Your task to perform on an android device: allow cookies in the chrome app Image 0: 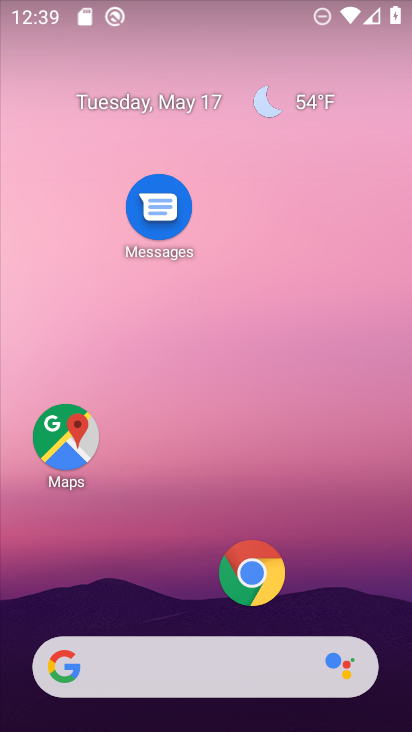
Step 0: click (252, 569)
Your task to perform on an android device: allow cookies in the chrome app Image 1: 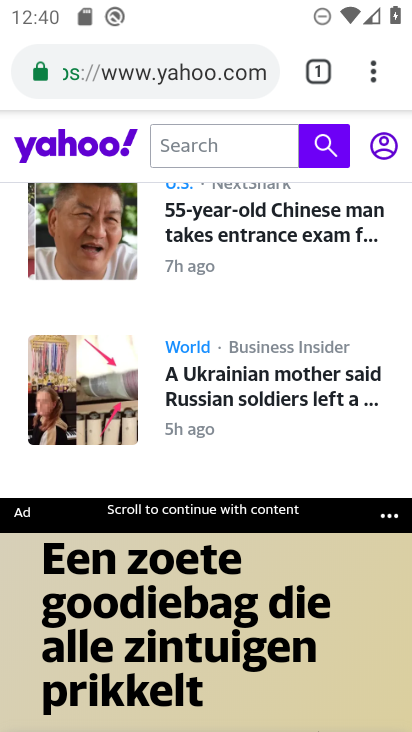
Step 1: click (372, 66)
Your task to perform on an android device: allow cookies in the chrome app Image 2: 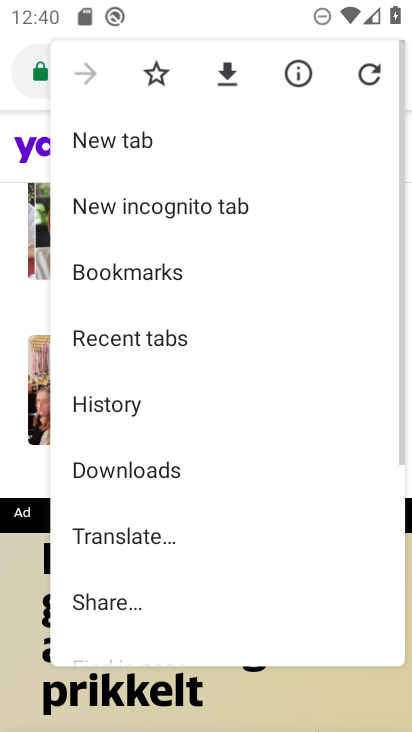
Step 2: drag from (179, 598) to (222, 52)
Your task to perform on an android device: allow cookies in the chrome app Image 3: 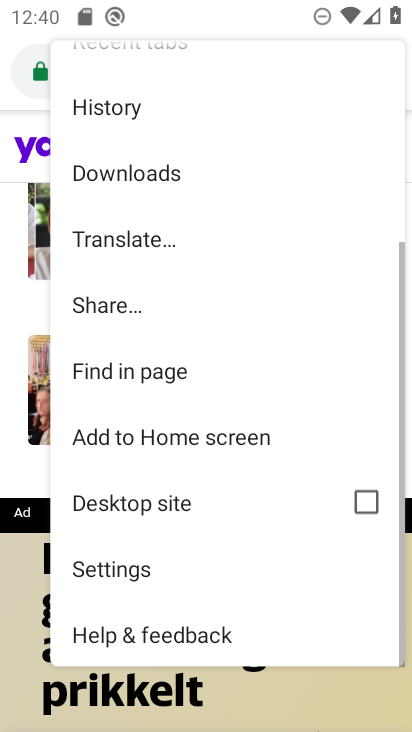
Step 3: click (163, 566)
Your task to perform on an android device: allow cookies in the chrome app Image 4: 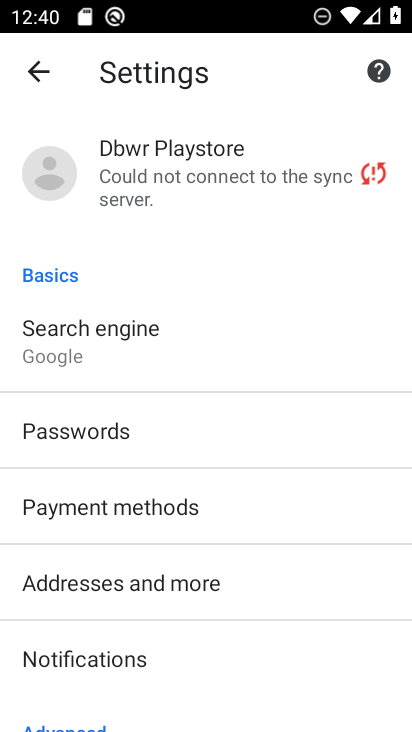
Step 4: drag from (247, 625) to (272, 170)
Your task to perform on an android device: allow cookies in the chrome app Image 5: 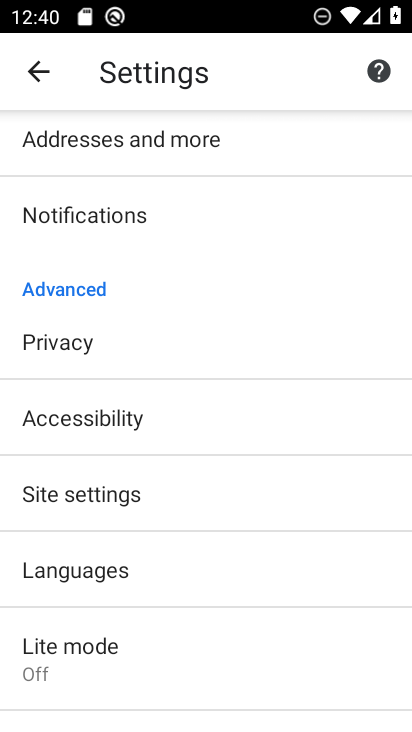
Step 5: drag from (179, 652) to (164, 164)
Your task to perform on an android device: allow cookies in the chrome app Image 6: 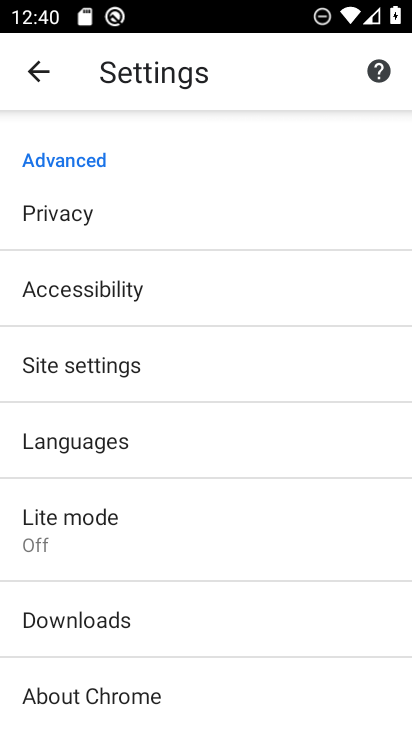
Step 6: click (158, 358)
Your task to perform on an android device: allow cookies in the chrome app Image 7: 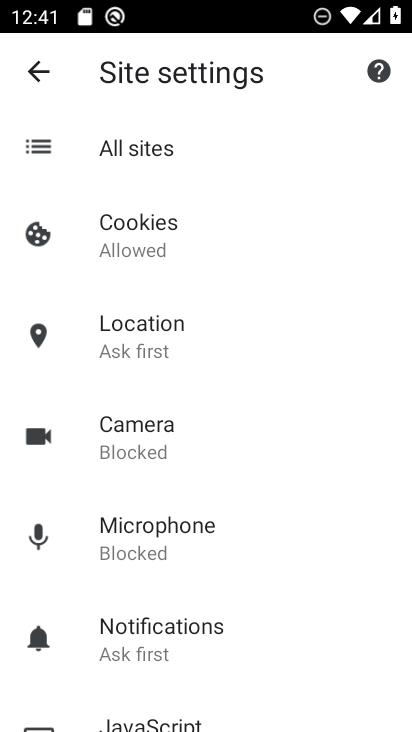
Step 7: click (194, 232)
Your task to perform on an android device: allow cookies in the chrome app Image 8: 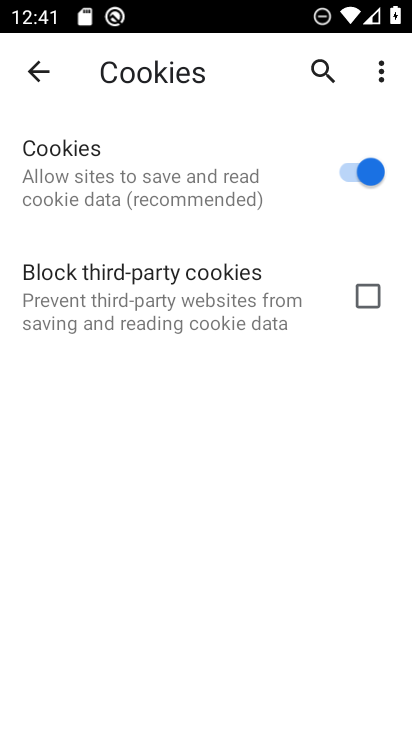
Step 8: task complete